Your task to perform on an android device: change the upload size in google photos Image 0: 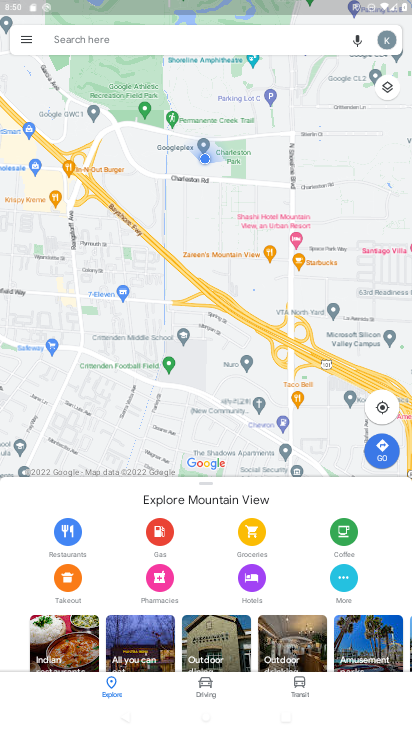
Step 0: press home button
Your task to perform on an android device: change the upload size in google photos Image 1: 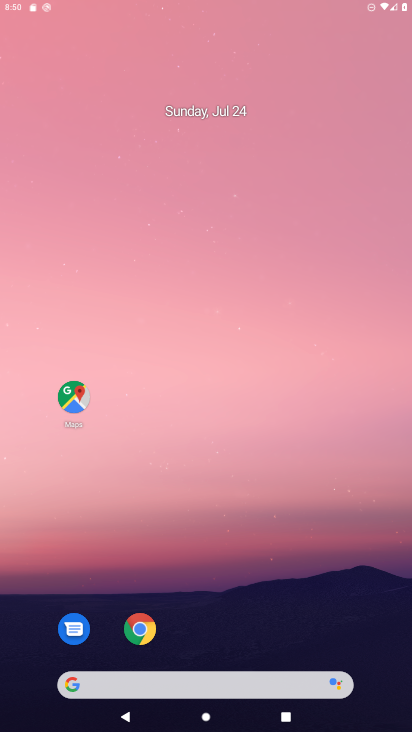
Step 1: drag from (370, 713) to (218, 107)
Your task to perform on an android device: change the upload size in google photos Image 2: 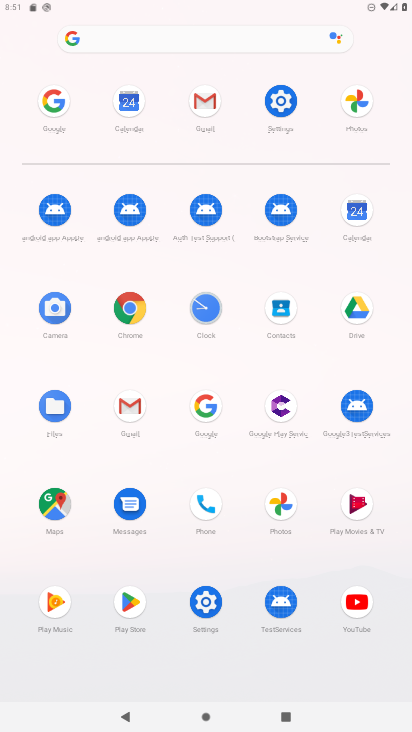
Step 2: click (277, 492)
Your task to perform on an android device: change the upload size in google photos Image 3: 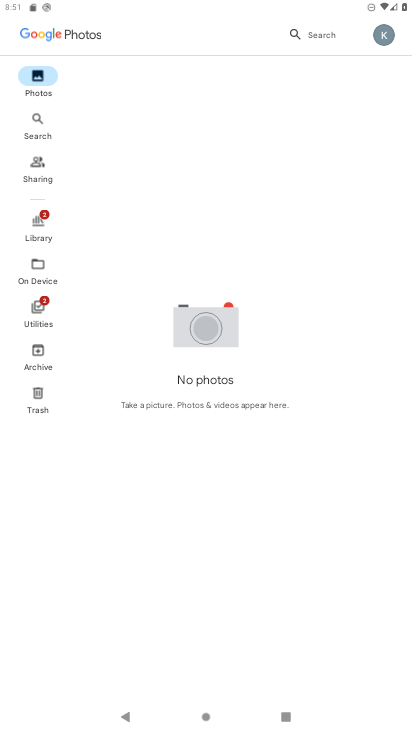
Step 3: click (394, 39)
Your task to perform on an android device: change the upload size in google photos Image 4: 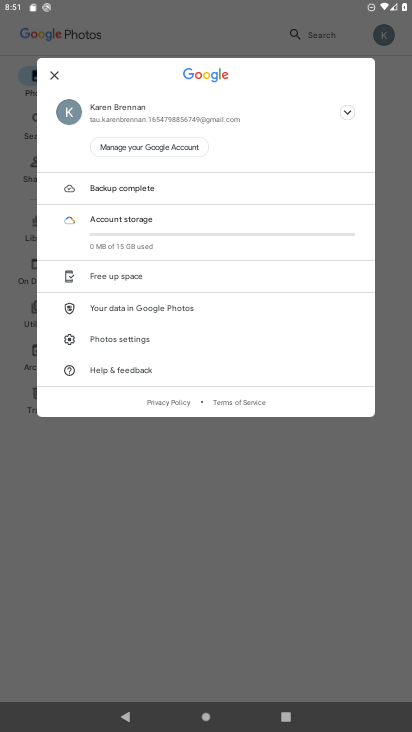
Step 4: click (127, 336)
Your task to perform on an android device: change the upload size in google photos Image 5: 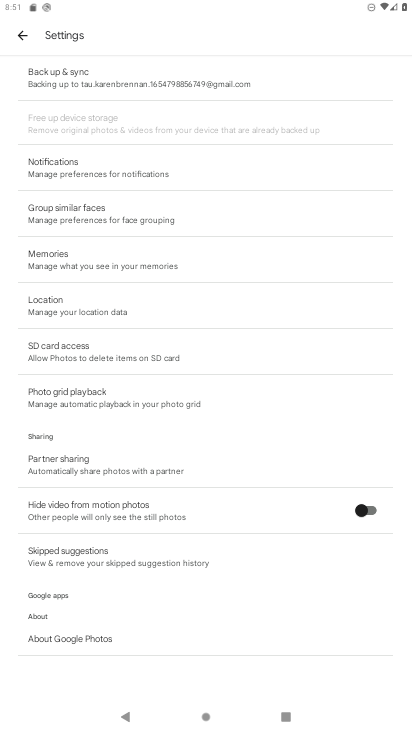
Step 5: click (53, 85)
Your task to perform on an android device: change the upload size in google photos Image 6: 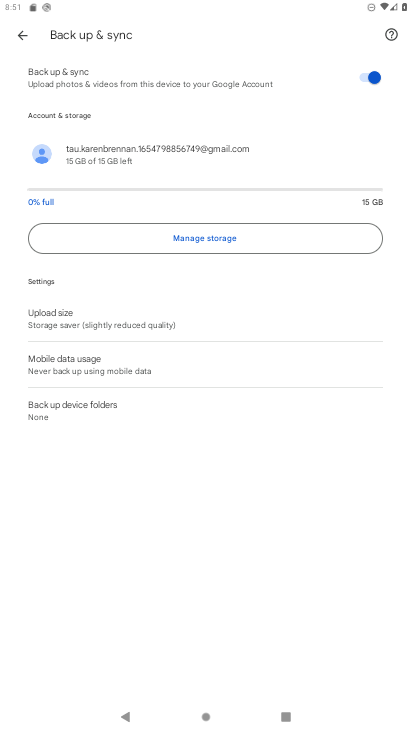
Step 6: click (68, 321)
Your task to perform on an android device: change the upload size in google photos Image 7: 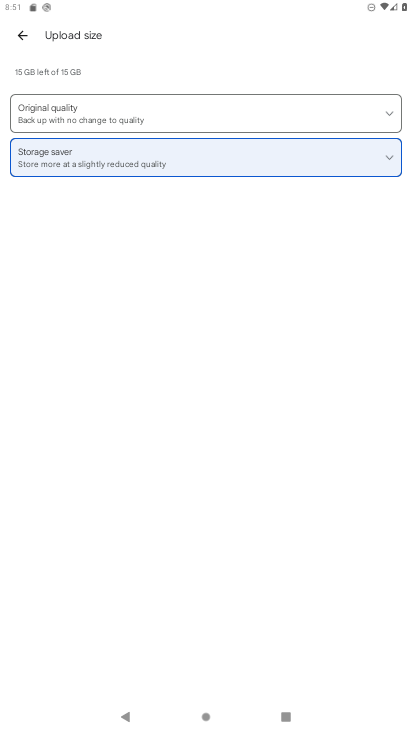
Step 7: click (97, 101)
Your task to perform on an android device: change the upload size in google photos Image 8: 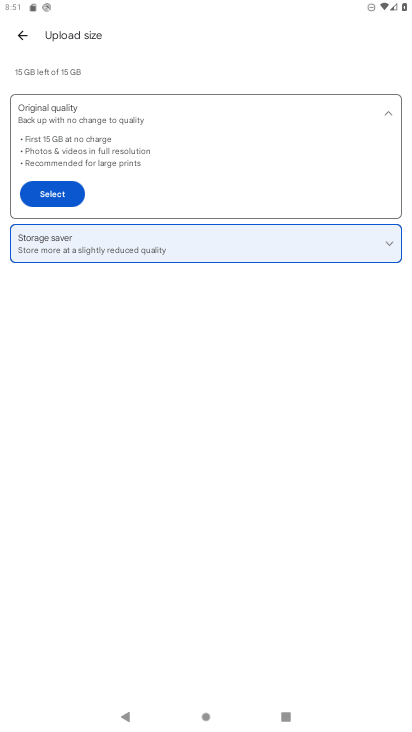
Step 8: click (49, 202)
Your task to perform on an android device: change the upload size in google photos Image 9: 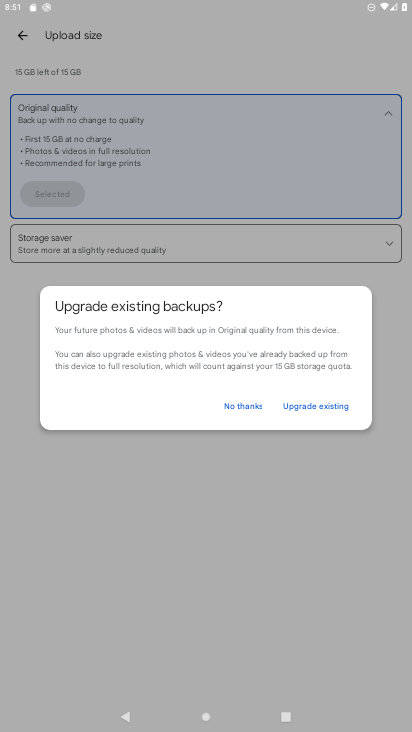
Step 9: click (301, 407)
Your task to perform on an android device: change the upload size in google photos Image 10: 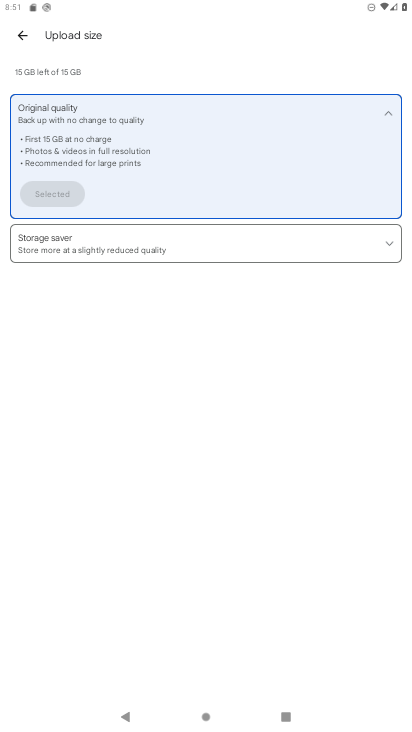
Step 10: task complete